Your task to perform on an android device: Add logitech g pro to the cart on newegg, then select checkout. Image 0: 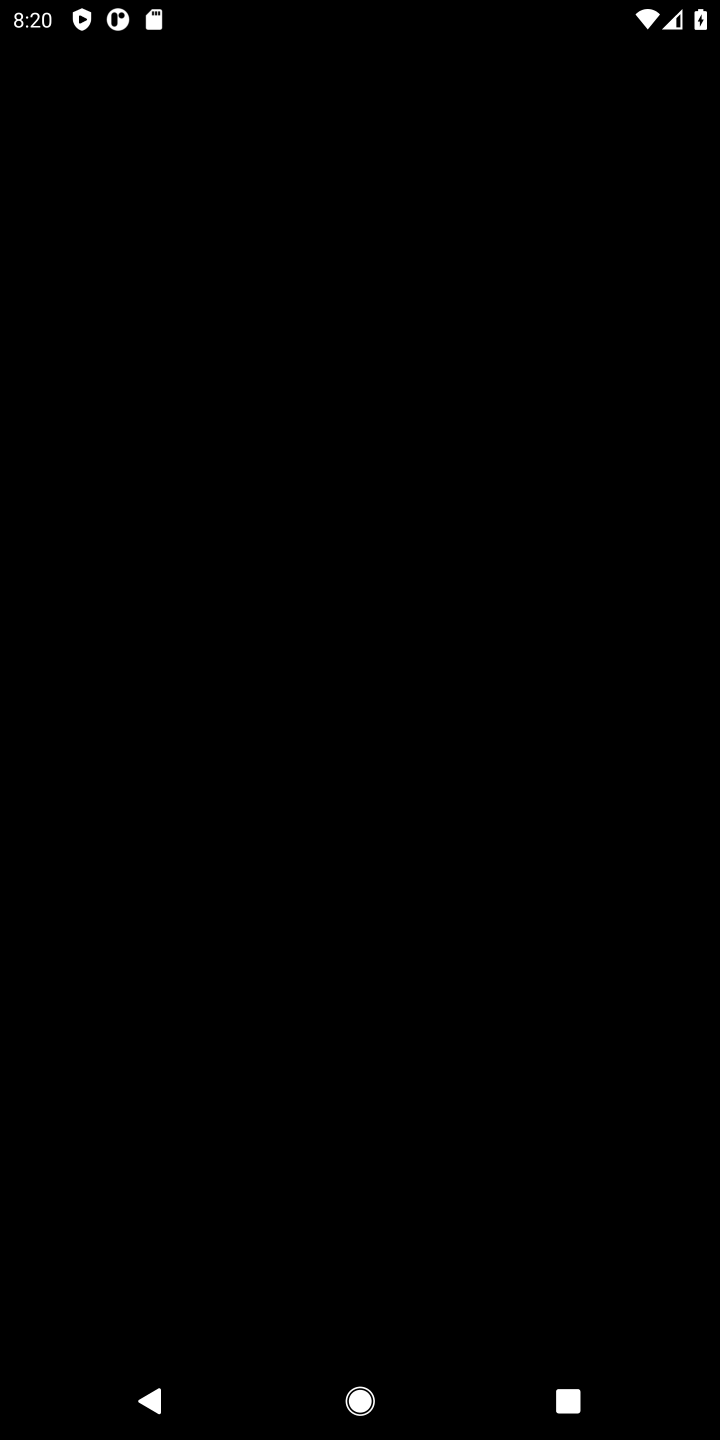
Step 0: press home button
Your task to perform on an android device: Add logitech g pro to the cart on newegg, then select checkout. Image 1: 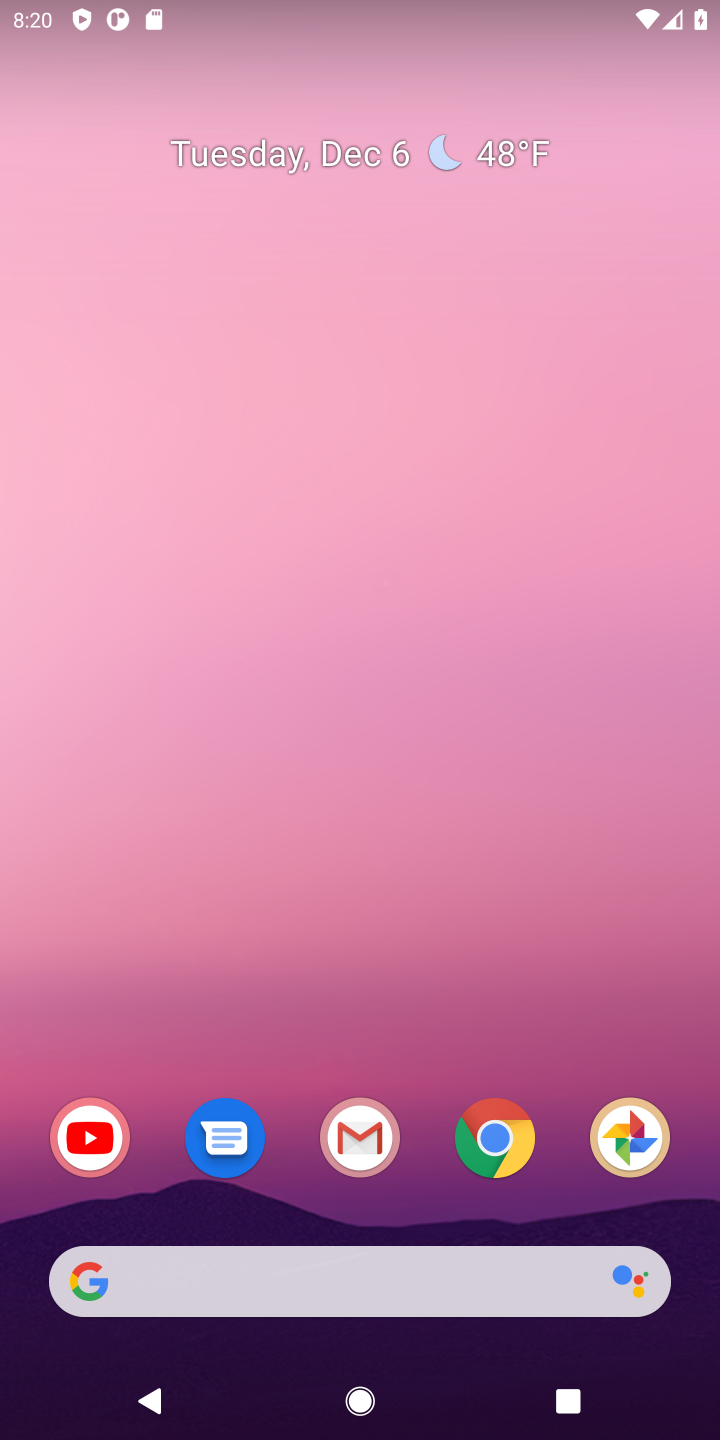
Step 1: click (503, 1124)
Your task to perform on an android device: Add logitech g pro to the cart on newegg, then select checkout. Image 2: 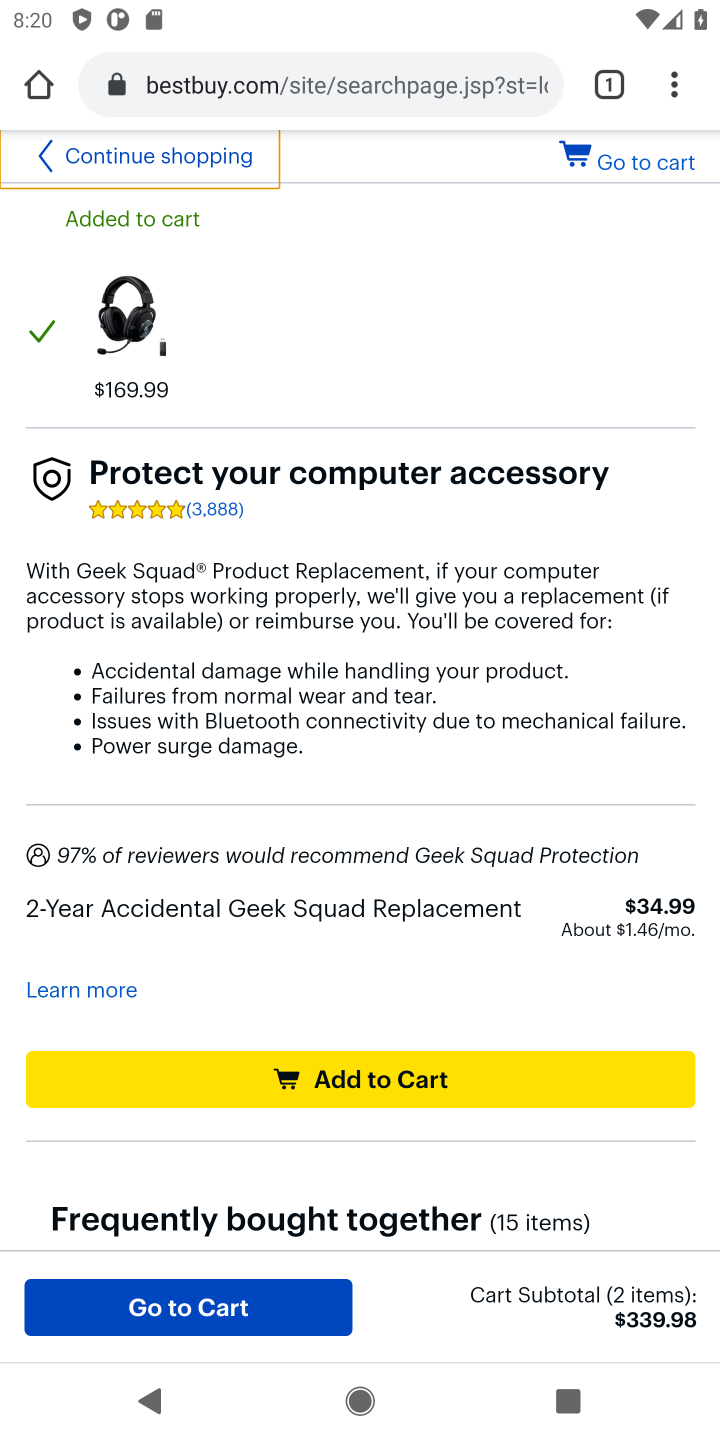
Step 2: click (355, 84)
Your task to perform on an android device: Add logitech g pro to the cart on newegg, then select checkout. Image 3: 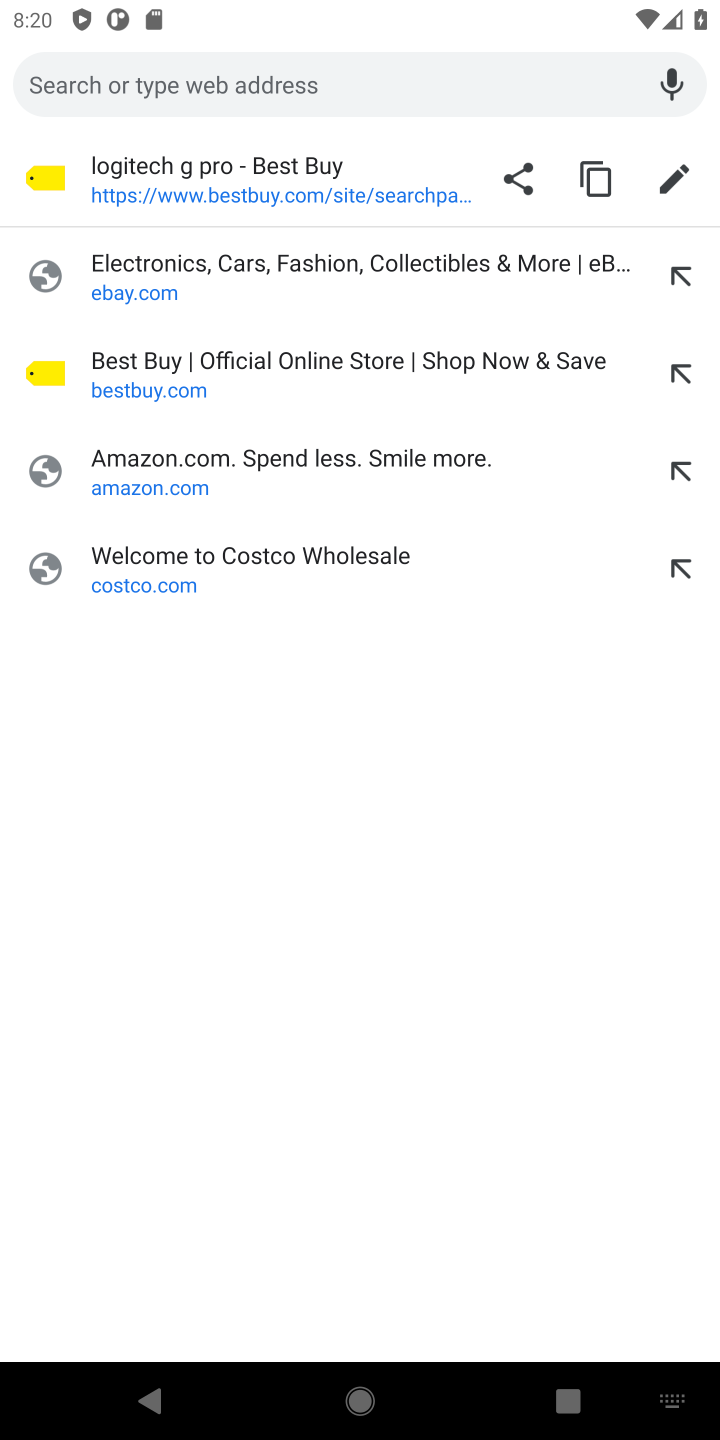
Step 3: type "newegg.com"
Your task to perform on an android device: Add logitech g pro to the cart on newegg, then select checkout. Image 4: 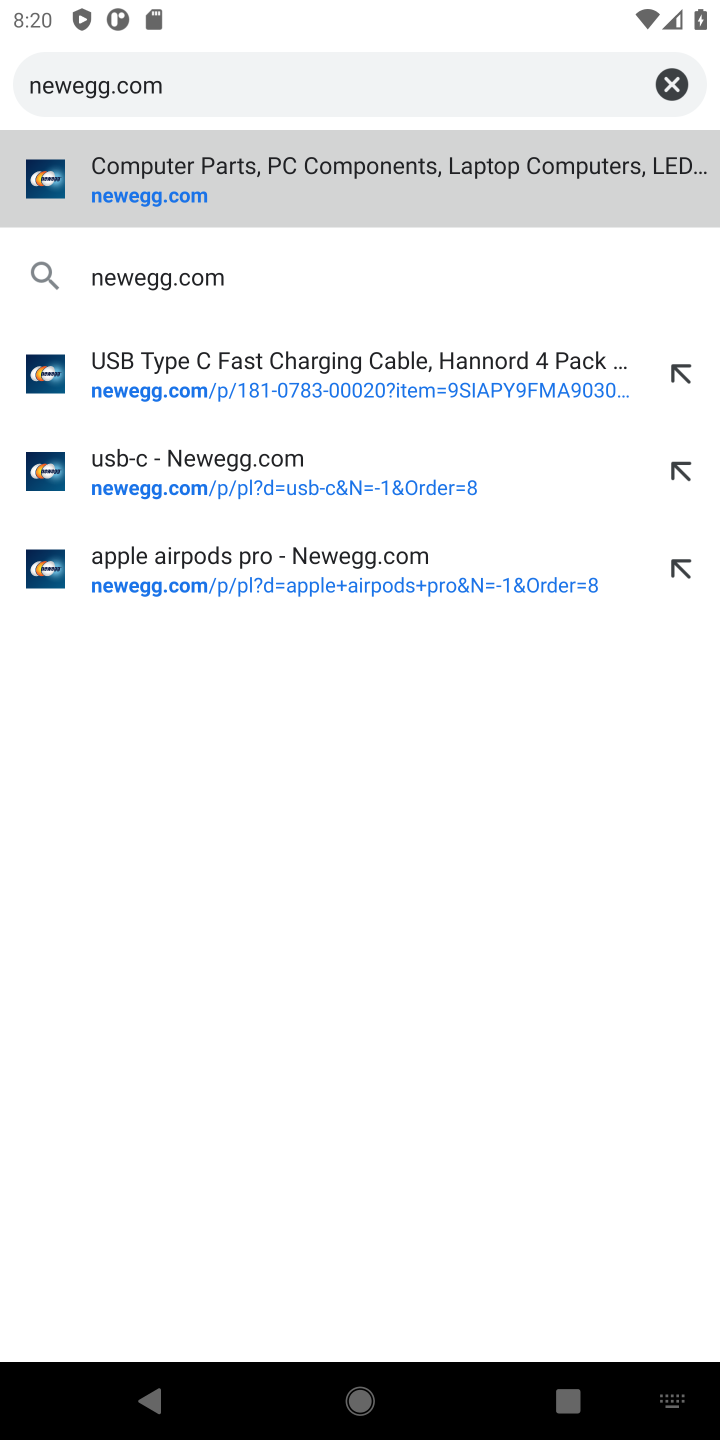
Step 4: click (155, 184)
Your task to perform on an android device: Add logitech g pro to the cart on newegg, then select checkout. Image 5: 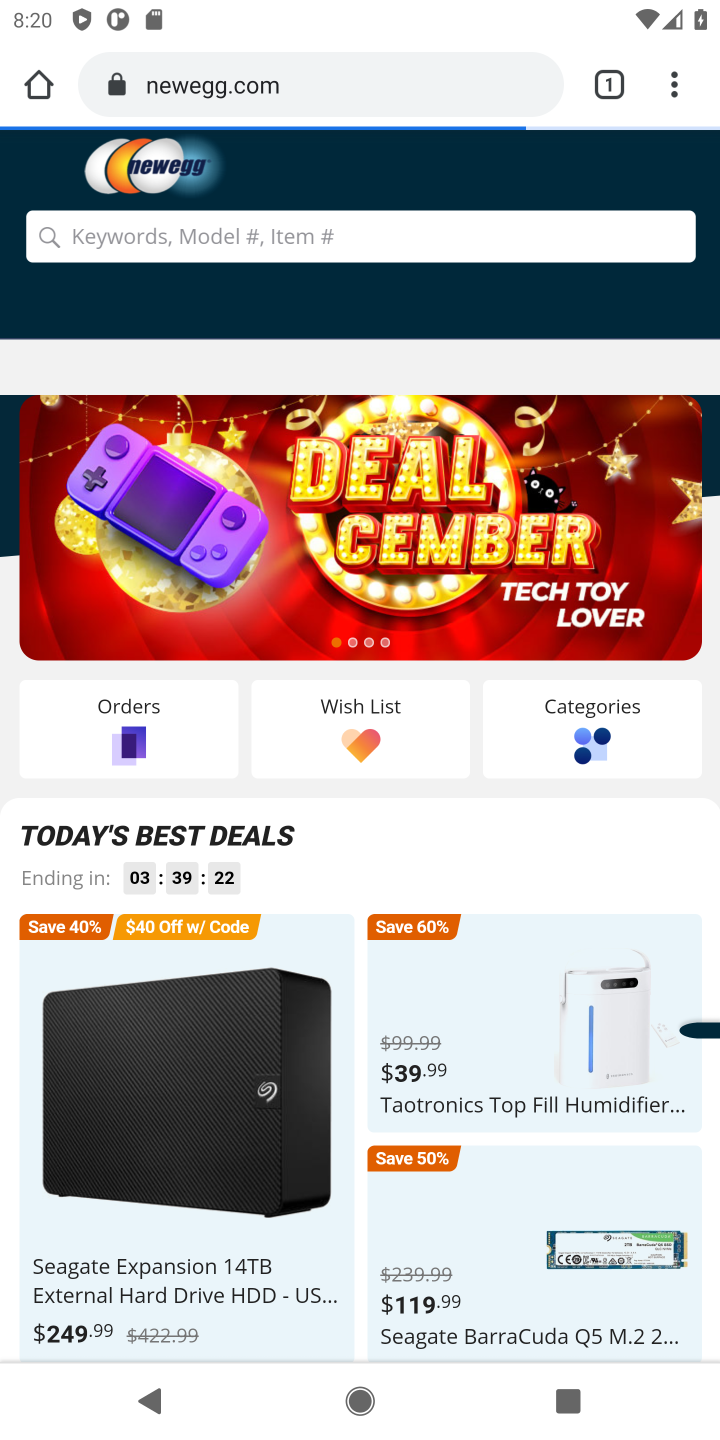
Step 5: click (258, 225)
Your task to perform on an android device: Add logitech g pro to the cart on newegg, then select checkout. Image 6: 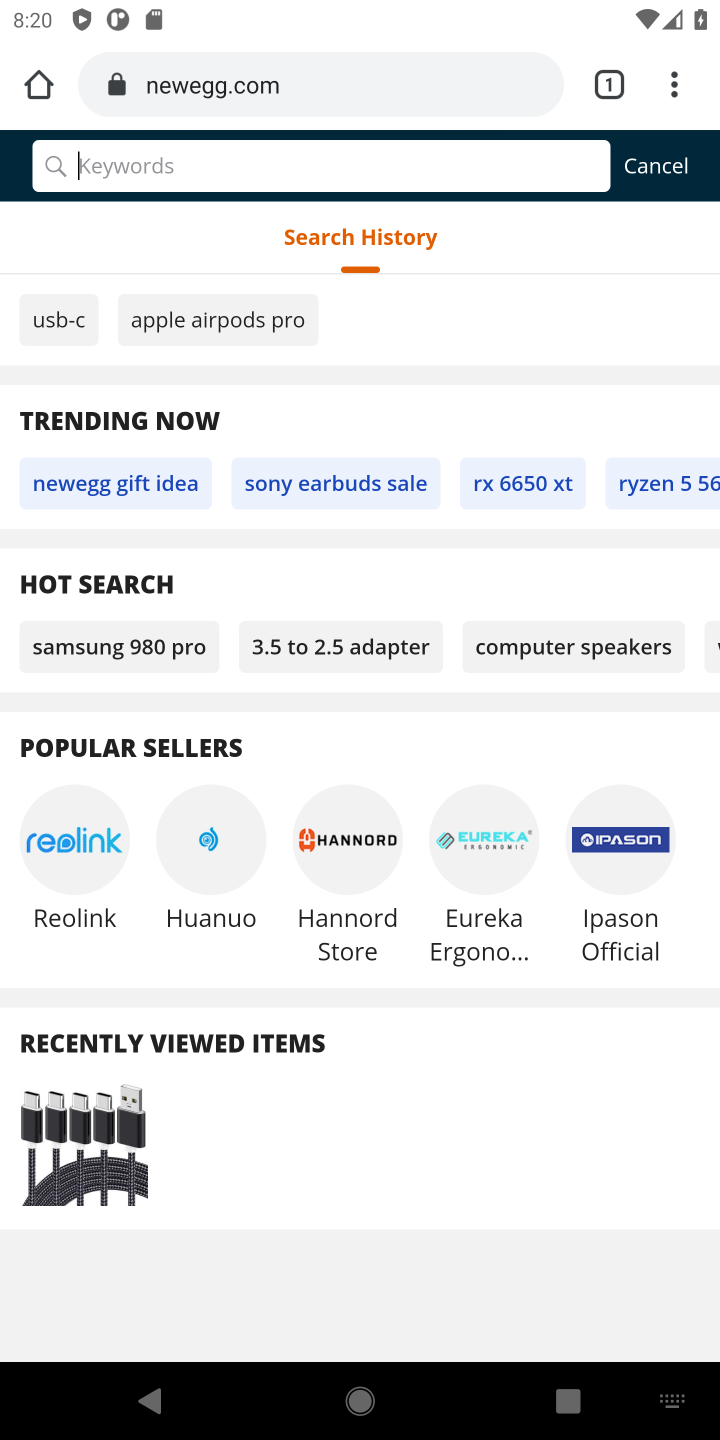
Step 6: type "logitech g pro "
Your task to perform on an android device: Add logitech g pro to the cart on newegg, then select checkout. Image 7: 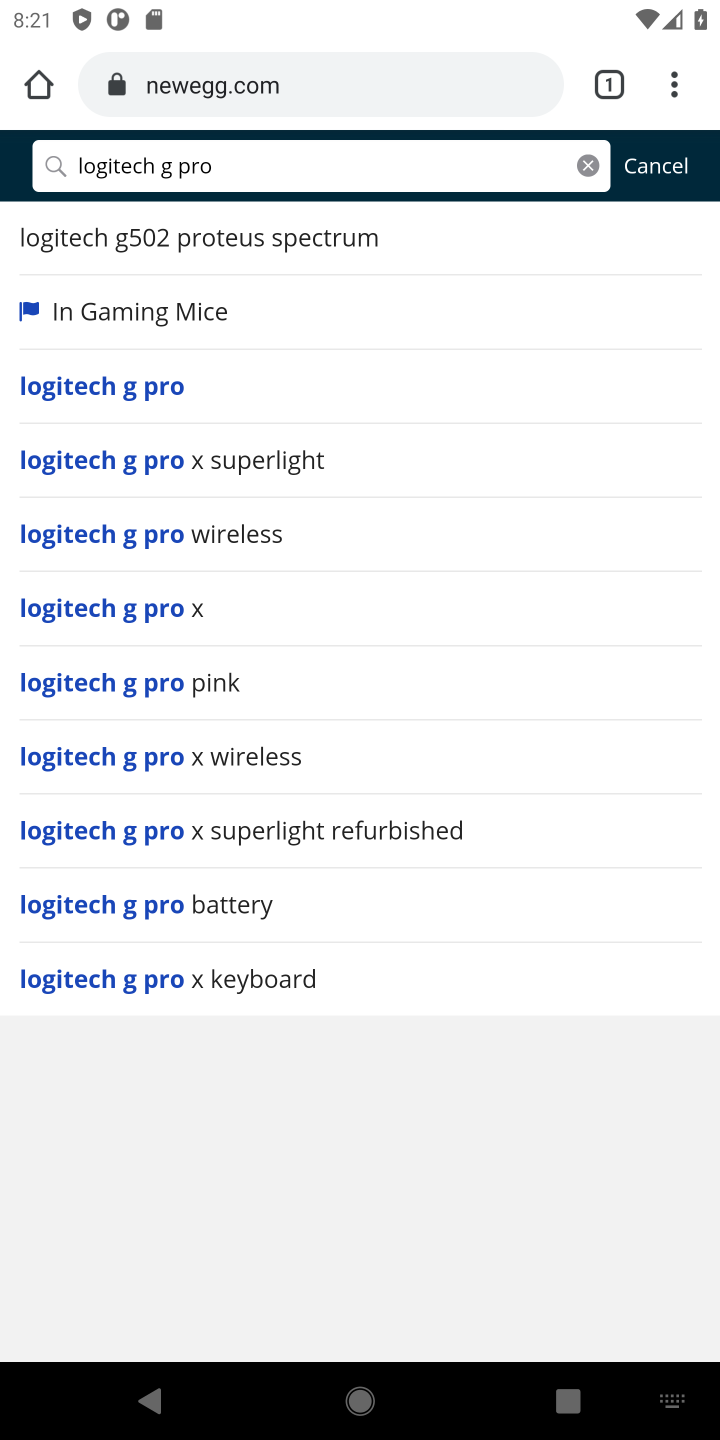
Step 7: click (108, 393)
Your task to perform on an android device: Add logitech g pro to the cart on newegg, then select checkout. Image 8: 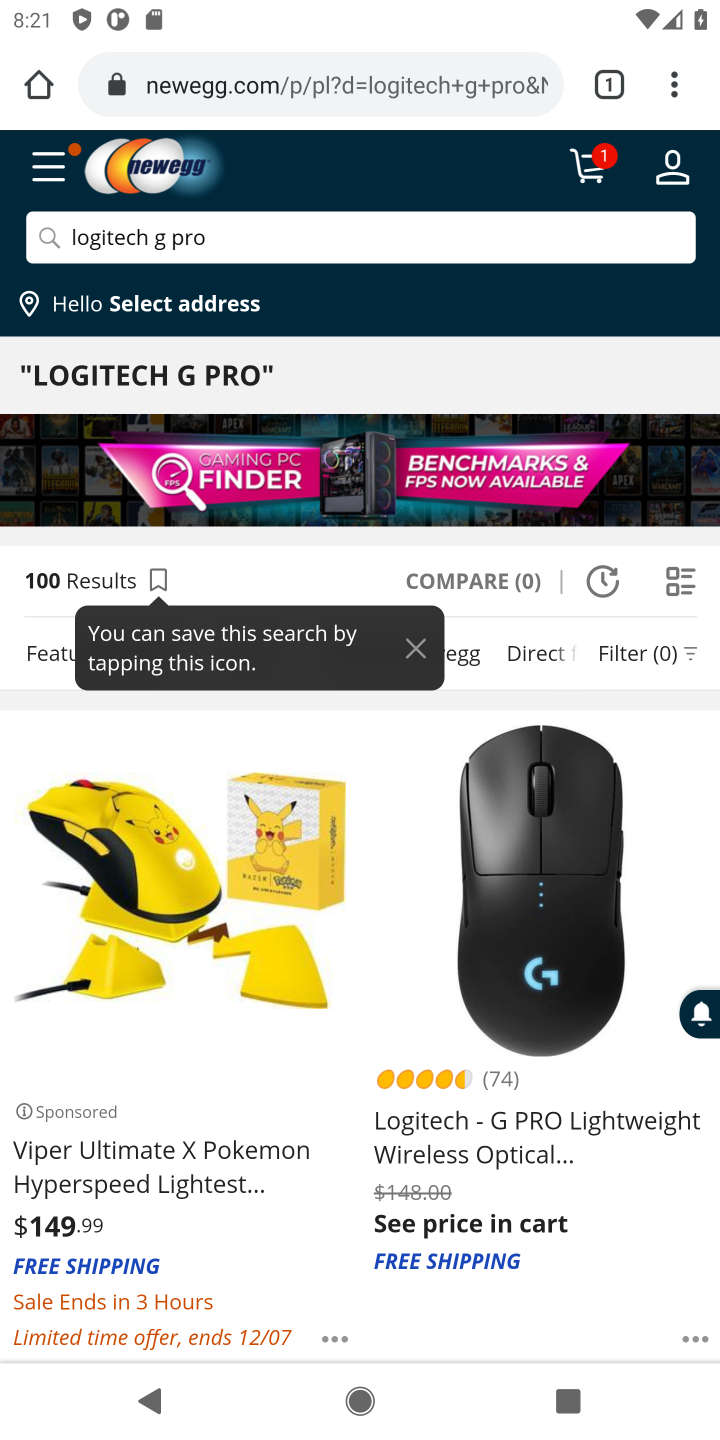
Step 8: click (561, 1130)
Your task to perform on an android device: Add logitech g pro to the cart on newegg, then select checkout. Image 9: 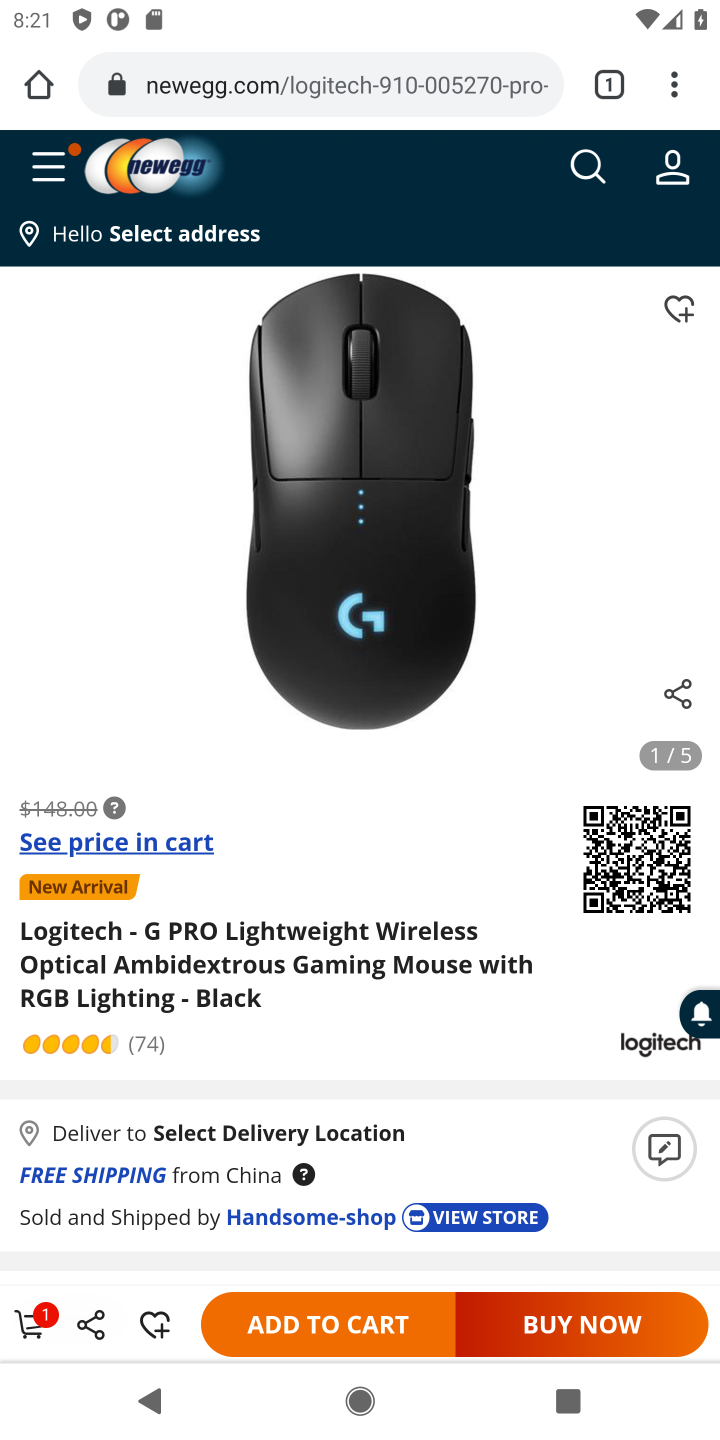
Step 9: click (305, 1334)
Your task to perform on an android device: Add logitech g pro to the cart on newegg, then select checkout. Image 10: 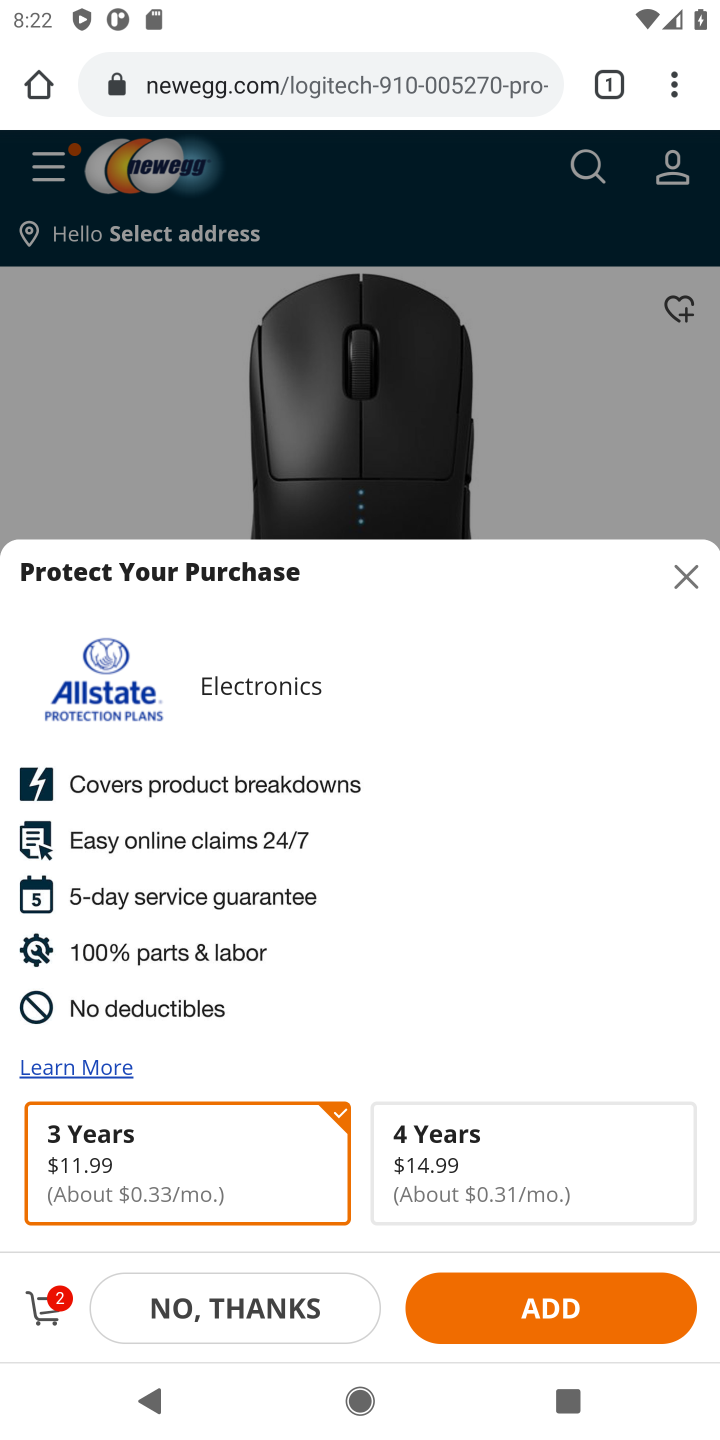
Step 10: click (49, 1312)
Your task to perform on an android device: Add logitech g pro to the cart on newegg, then select checkout. Image 11: 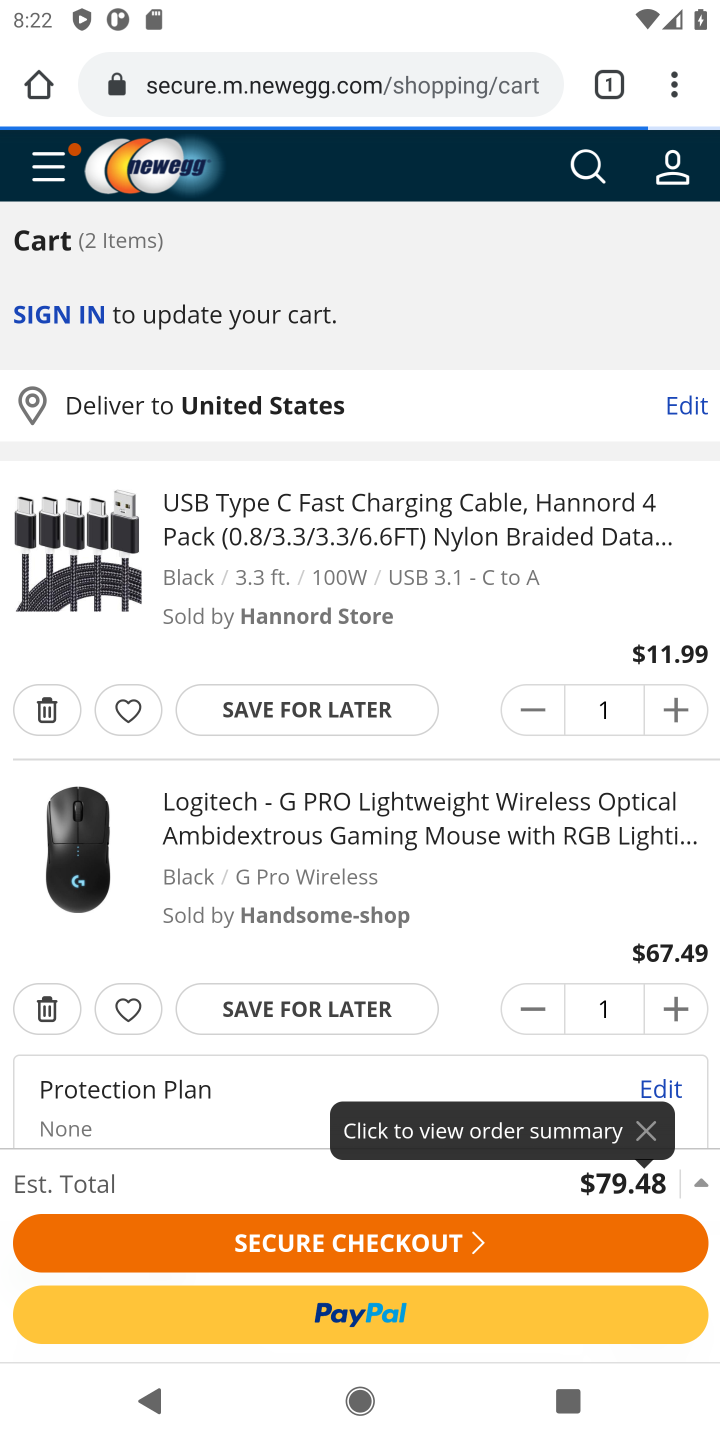
Step 11: click (182, 1276)
Your task to perform on an android device: Add logitech g pro to the cart on newegg, then select checkout. Image 12: 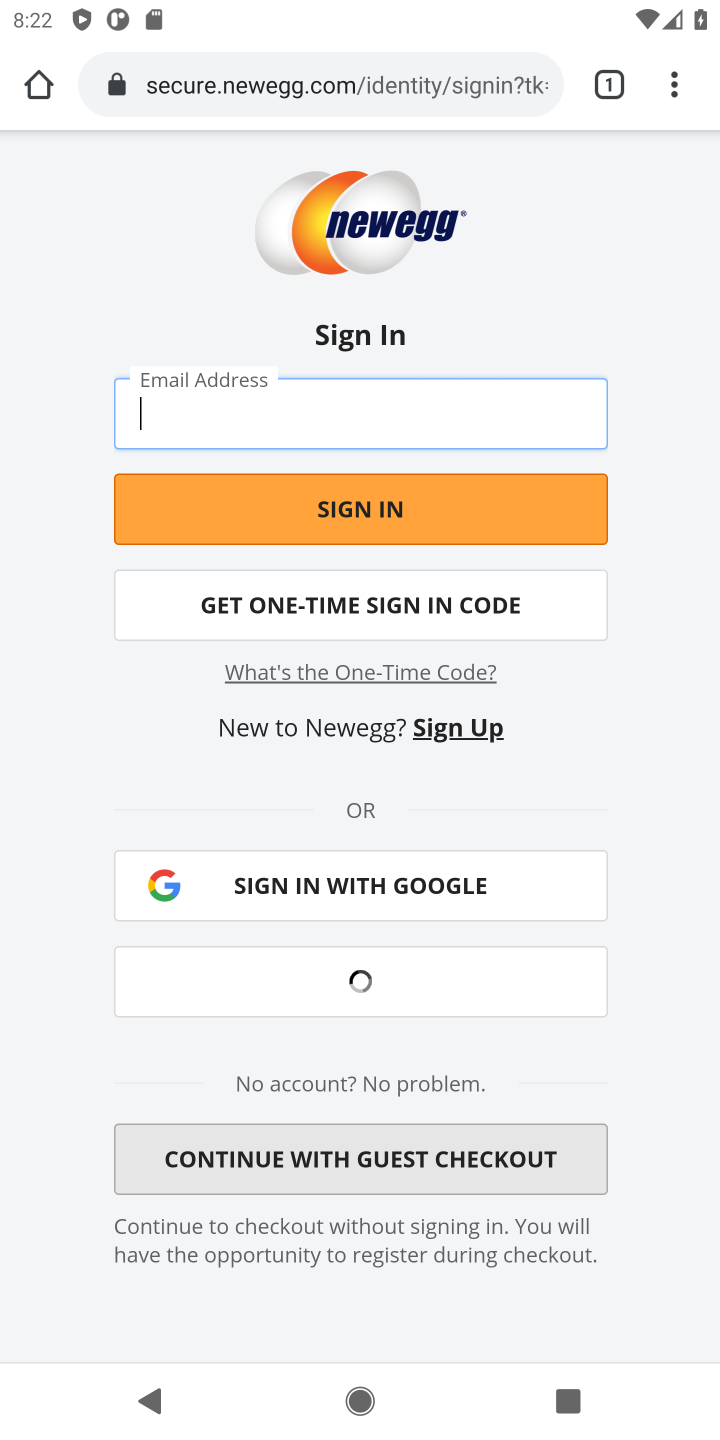
Step 12: task complete